Your task to perform on an android device: find photos in the google photos app Image 0: 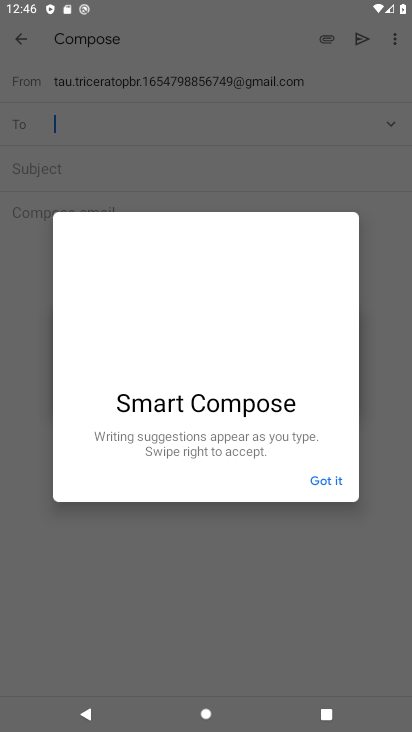
Step 0: press home button
Your task to perform on an android device: find photos in the google photos app Image 1: 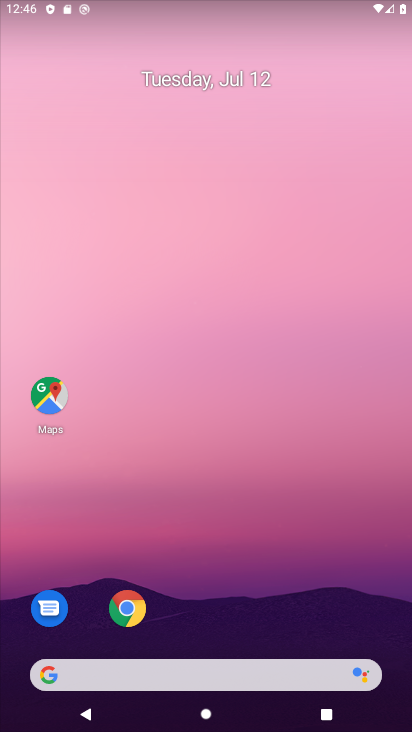
Step 1: drag from (325, 629) to (277, 77)
Your task to perform on an android device: find photos in the google photos app Image 2: 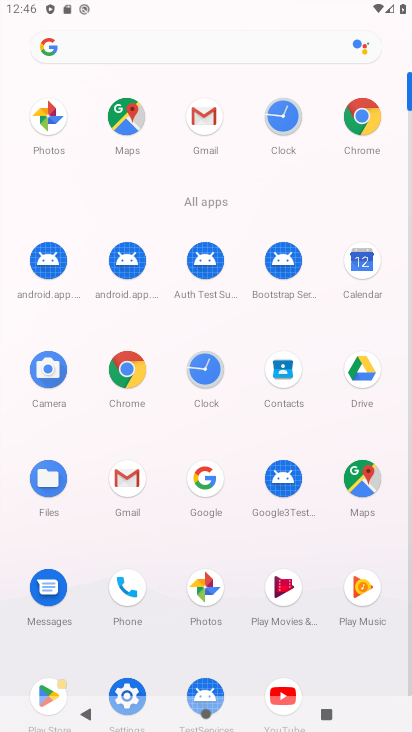
Step 2: click (48, 129)
Your task to perform on an android device: find photos in the google photos app Image 3: 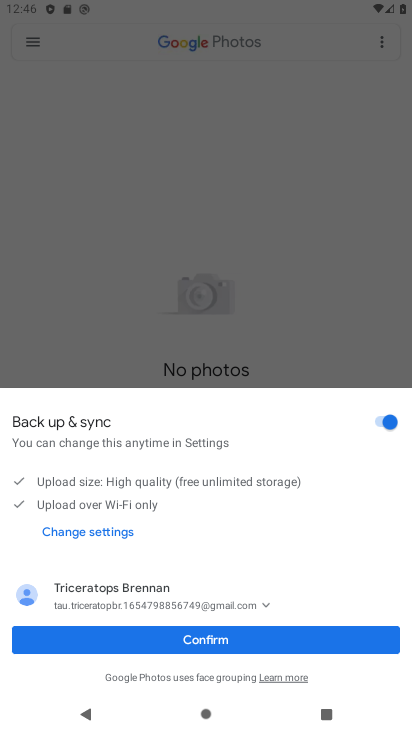
Step 3: click (349, 641)
Your task to perform on an android device: find photos in the google photos app Image 4: 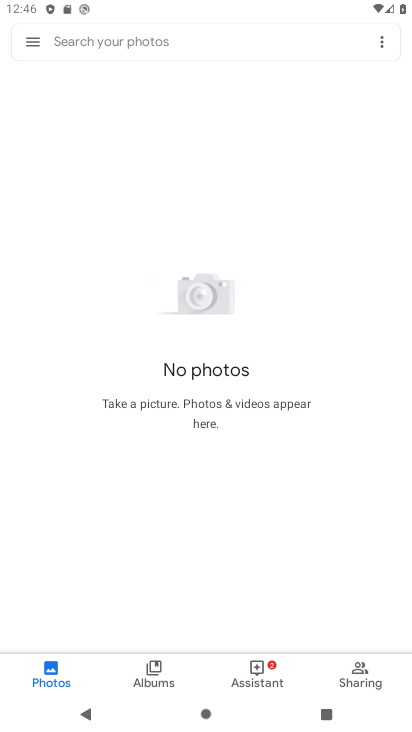
Step 4: task complete